Your task to perform on an android device: toggle javascript in the chrome app Image 0: 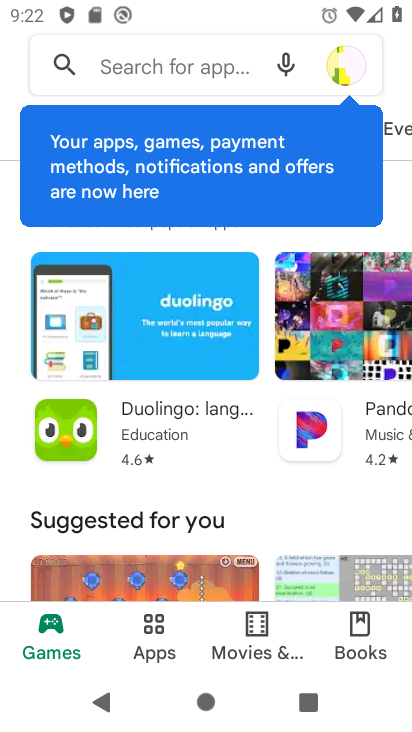
Step 0: press home button
Your task to perform on an android device: toggle javascript in the chrome app Image 1: 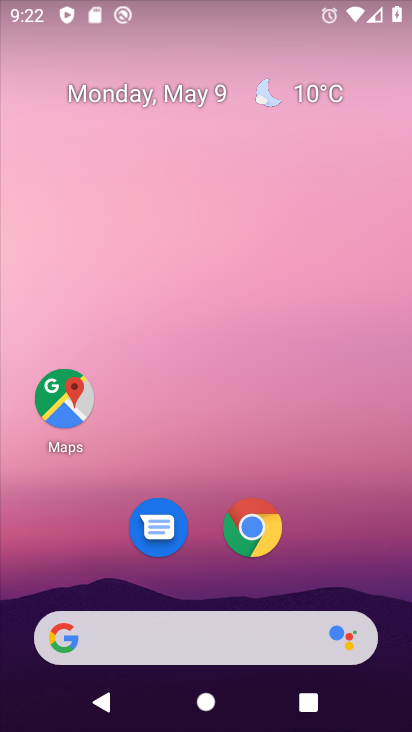
Step 1: click (253, 527)
Your task to perform on an android device: toggle javascript in the chrome app Image 2: 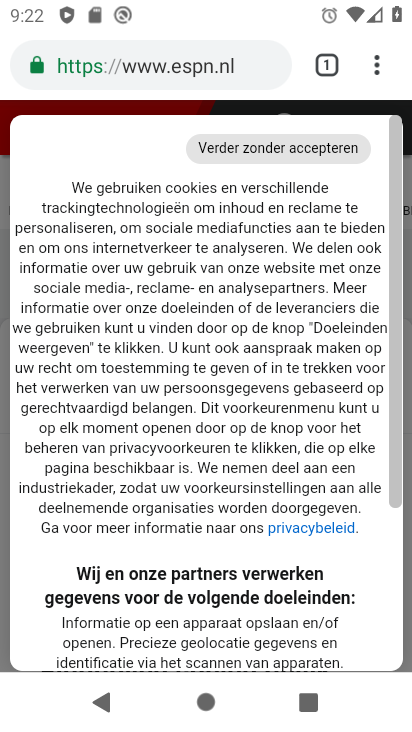
Step 2: click (373, 65)
Your task to perform on an android device: toggle javascript in the chrome app Image 3: 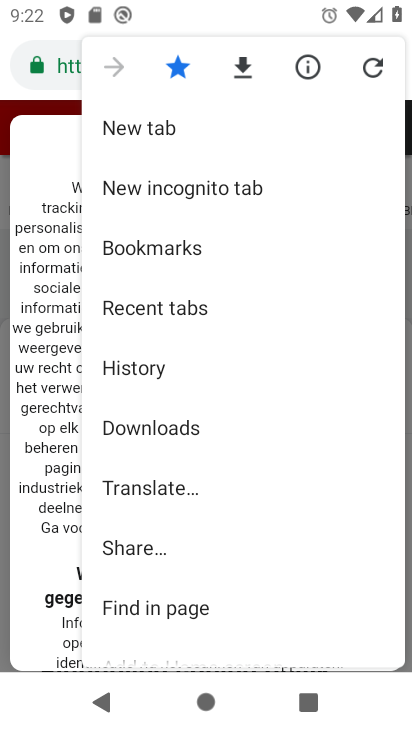
Step 3: drag from (218, 624) to (251, 286)
Your task to perform on an android device: toggle javascript in the chrome app Image 4: 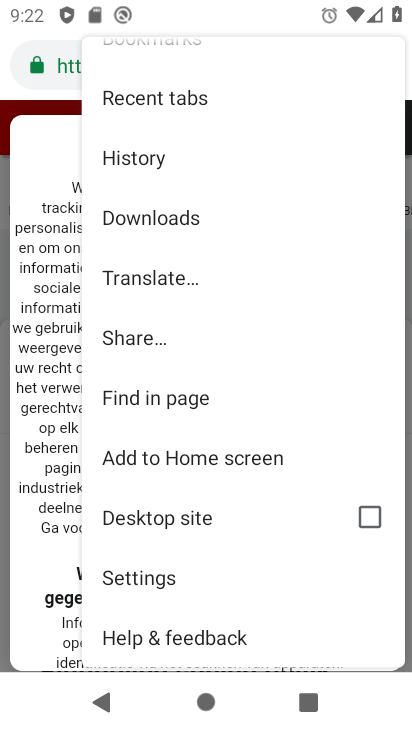
Step 4: click (147, 577)
Your task to perform on an android device: toggle javascript in the chrome app Image 5: 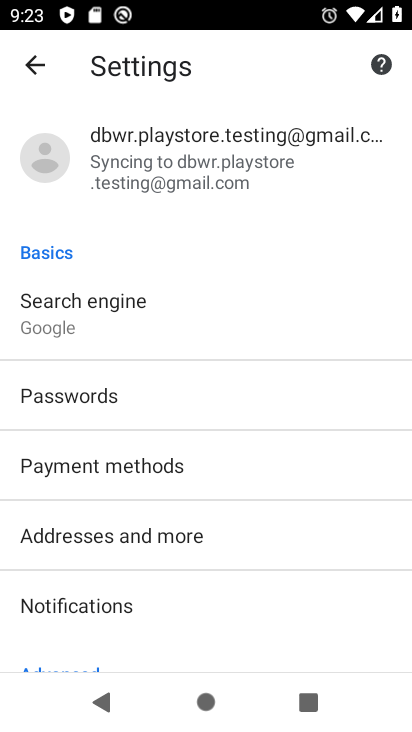
Step 5: drag from (225, 614) to (214, 171)
Your task to perform on an android device: toggle javascript in the chrome app Image 6: 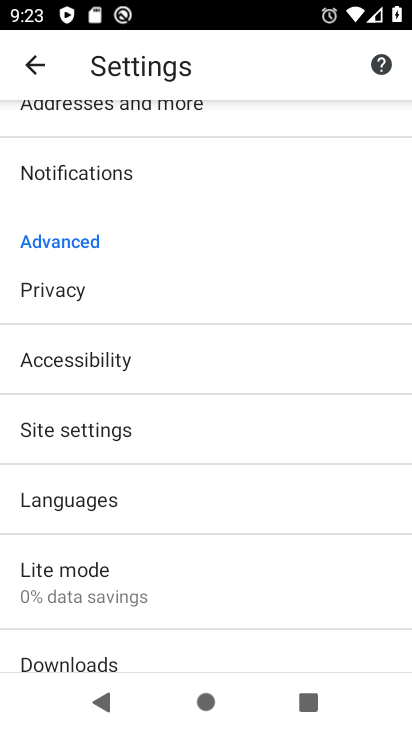
Step 6: click (50, 429)
Your task to perform on an android device: toggle javascript in the chrome app Image 7: 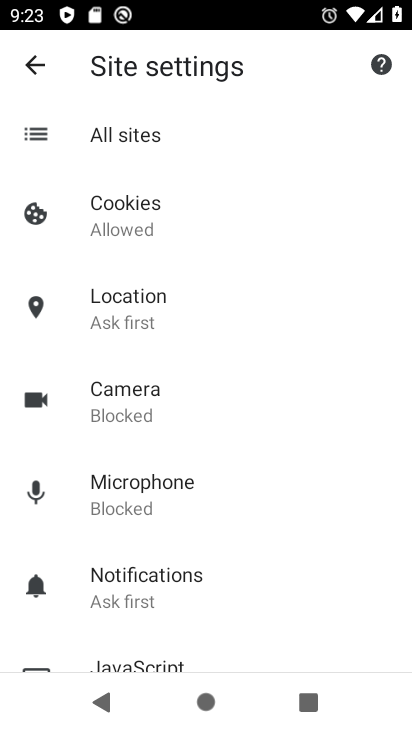
Step 7: drag from (244, 618) to (272, 190)
Your task to perform on an android device: toggle javascript in the chrome app Image 8: 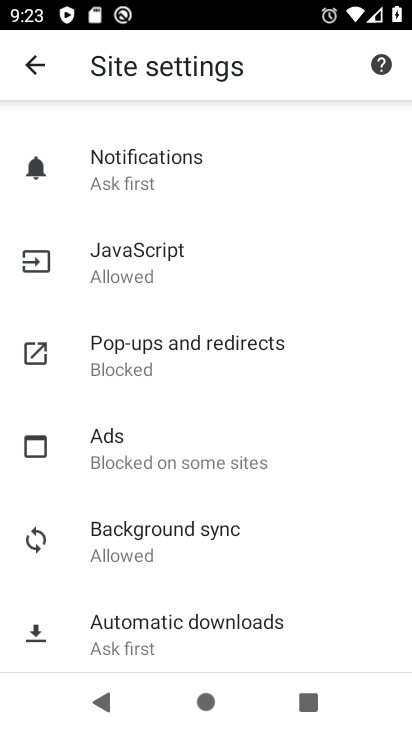
Step 8: click (124, 262)
Your task to perform on an android device: toggle javascript in the chrome app Image 9: 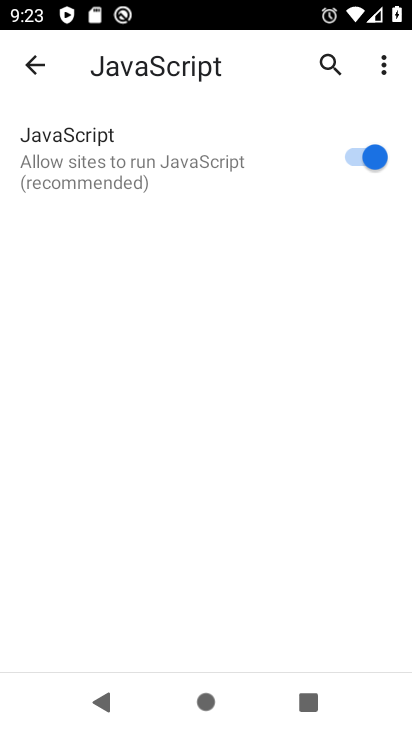
Step 9: click (124, 262)
Your task to perform on an android device: toggle javascript in the chrome app Image 10: 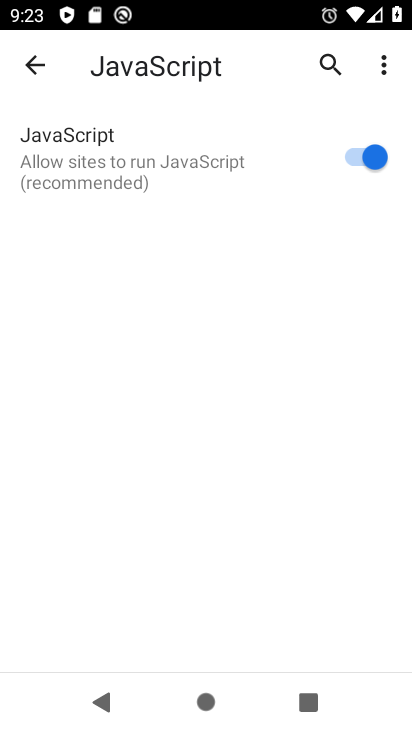
Step 10: click (349, 153)
Your task to perform on an android device: toggle javascript in the chrome app Image 11: 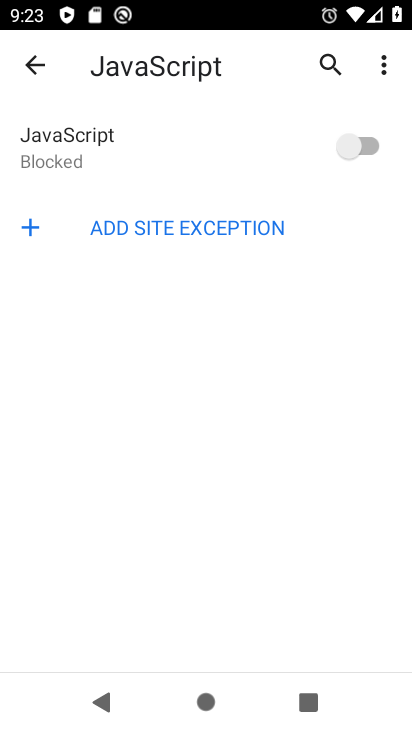
Step 11: task complete